Your task to perform on an android device: toggle translation in the chrome app Image 0: 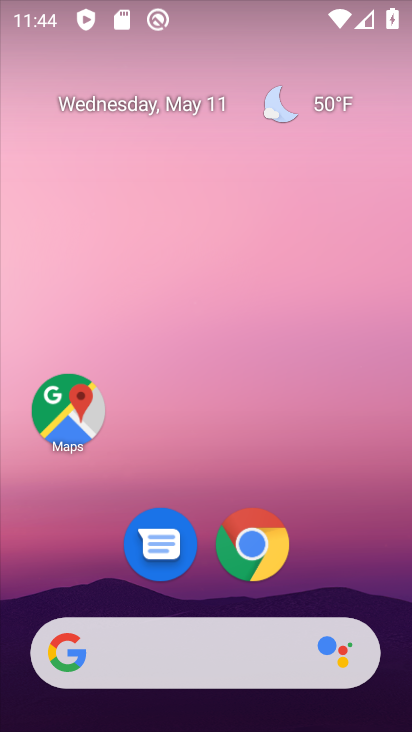
Step 0: click (248, 527)
Your task to perform on an android device: toggle translation in the chrome app Image 1: 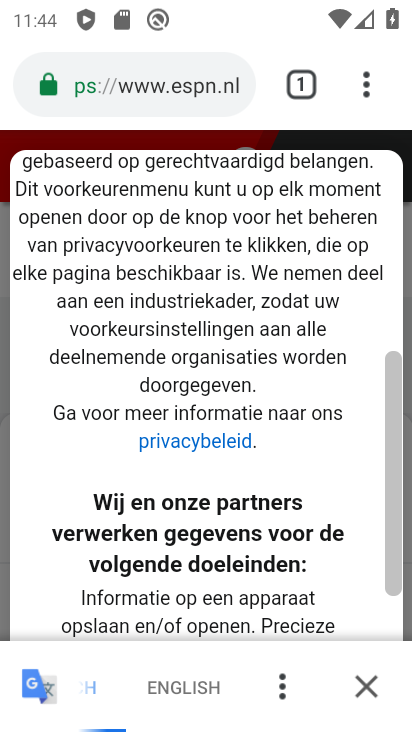
Step 1: drag from (372, 75) to (129, 585)
Your task to perform on an android device: toggle translation in the chrome app Image 2: 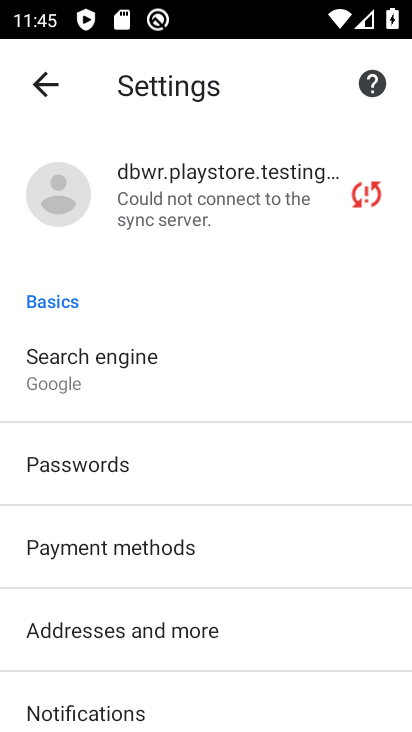
Step 2: drag from (200, 603) to (213, 42)
Your task to perform on an android device: toggle translation in the chrome app Image 3: 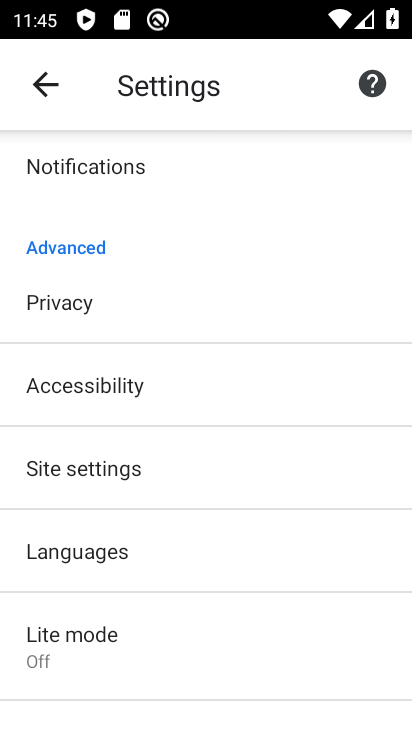
Step 3: click (143, 567)
Your task to perform on an android device: toggle translation in the chrome app Image 4: 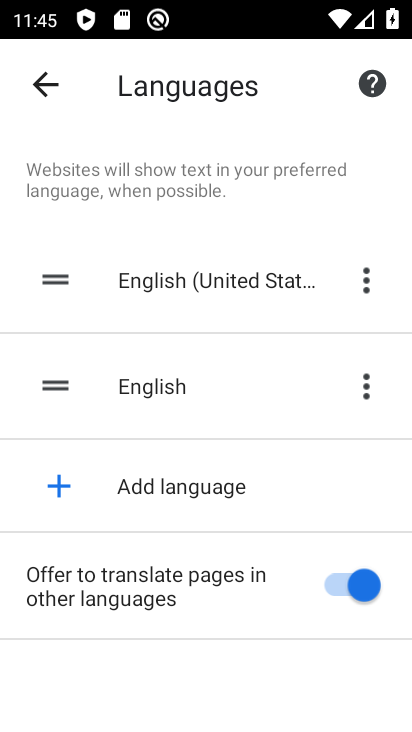
Step 4: click (354, 572)
Your task to perform on an android device: toggle translation in the chrome app Image 5: 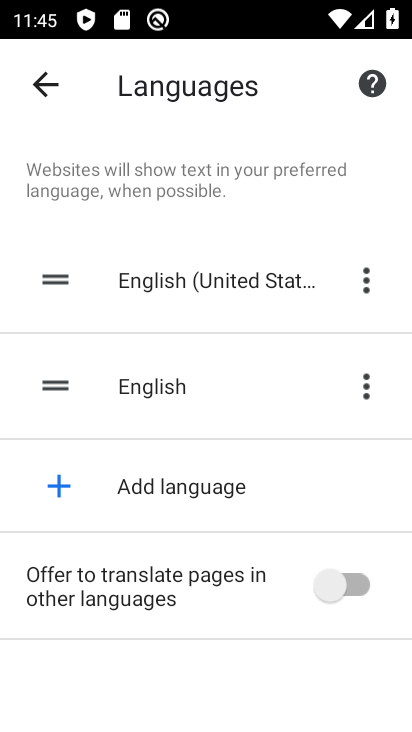
Step 5: task complete